Your task to perform on an android device: toggle sleep mode Image 0: 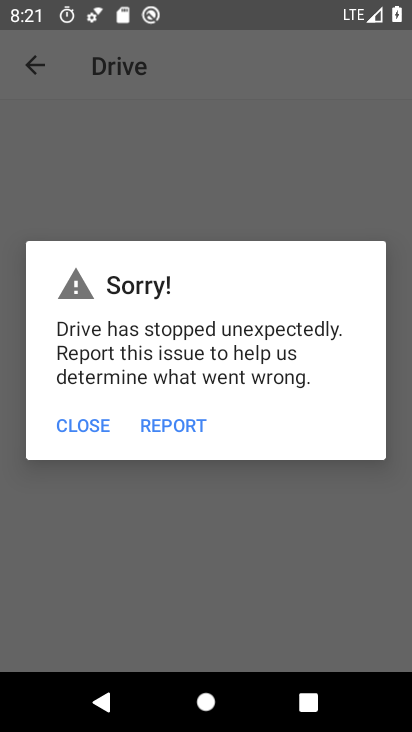
Step 0: press home button
Your task to perform on an android device: toggle sleep mode Image 1: 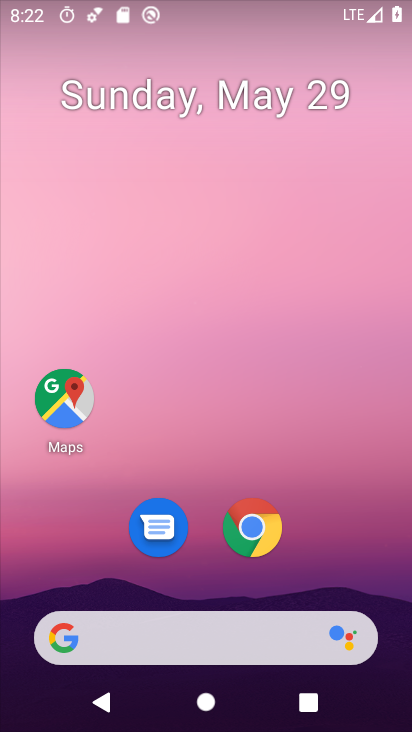
Step 1: drag from (213, 578) to (254, 30)
Your task to perform on an android device: toggle sleep mode Image 2: 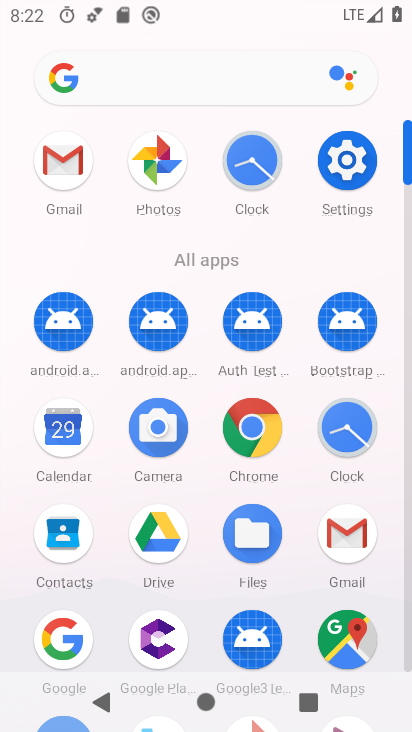
Step 2: click (346, 155)
Your task to perform on an android device: toggle sleep mode Image 3: 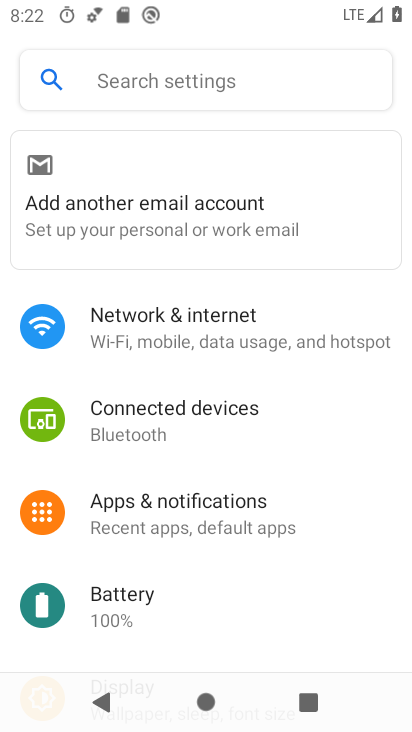
Step 3: drag from (201, 610) to (209, 250)
Your task to perform on an android device: toggle sleep mode Image 4: 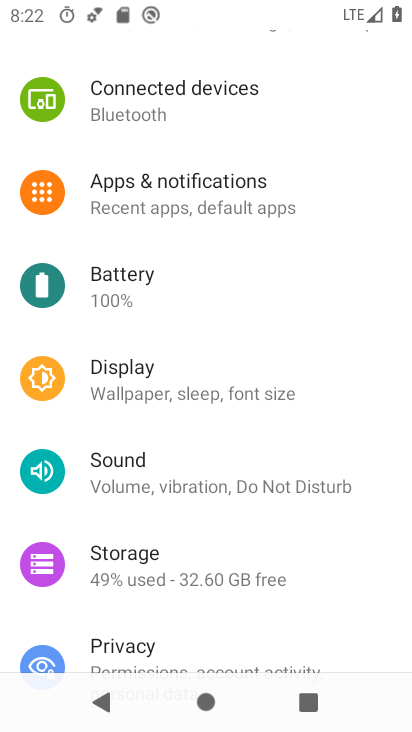
Step 4: click (167, 368)
Your task to perform on an android device: toggle sleep mode Image 5: 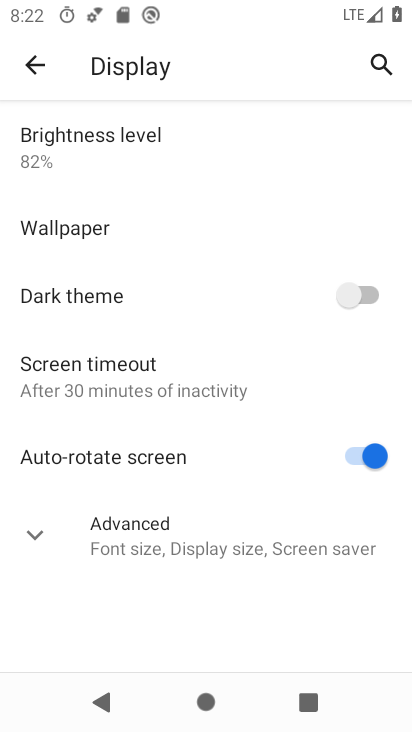
Step 5: click (32, 524)
Your task to perform on an android device: toggle sleep mode Image 6: 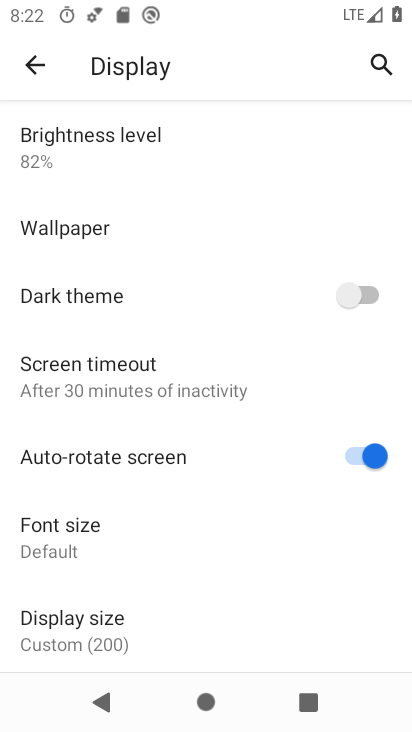
Step 6: task complete